Your task to perform on an android device: Go to notification settings Image 0: 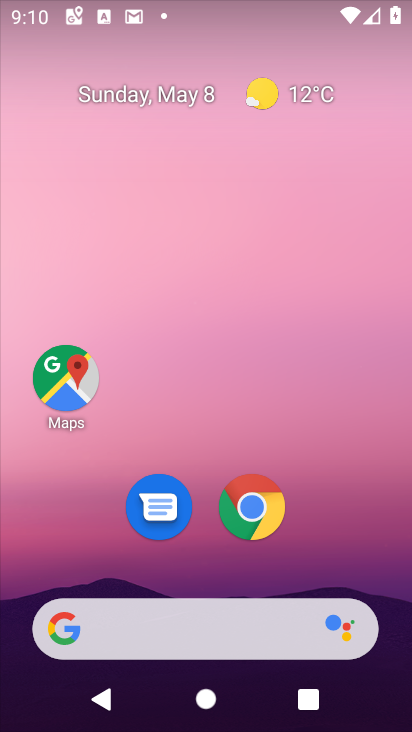
Step 0: drag from (249, 592) to (224, 37)
Your task to perform on an android device: Go to notification settings Image 1: 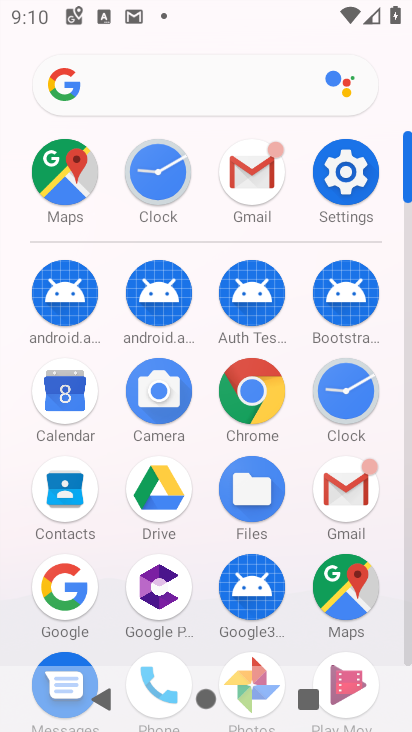
Step 1: click (355, 174)
Your task to perform on an android device: Go to notification settings Image 2: 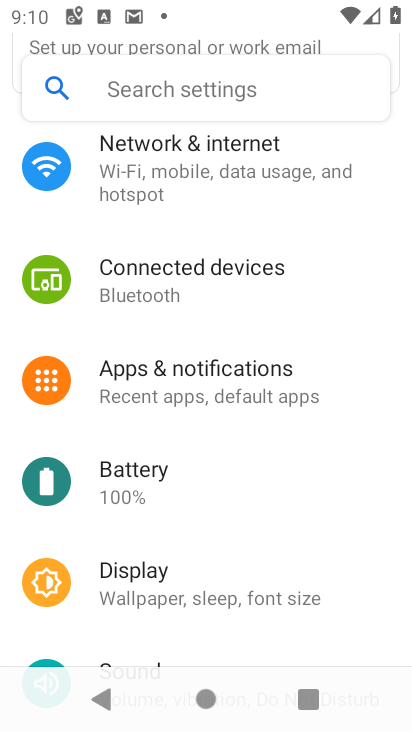
Step 2: click (266, 375)
Your task to perform on an android device: Go to notification settings Image 3: 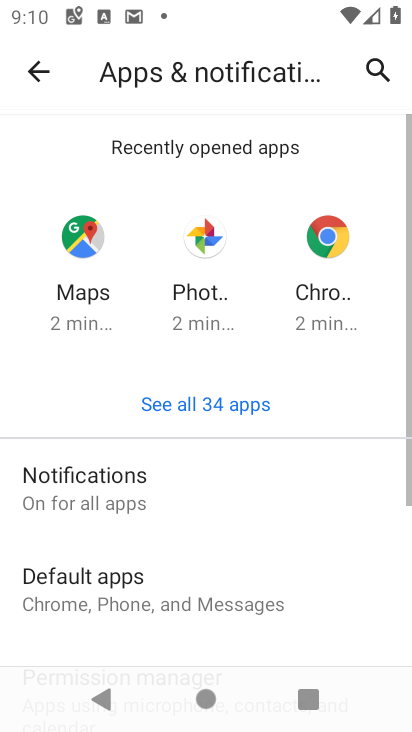
Step 3: task complete